Your task to perform on an android device: Open Google Chrome and open the bookmarks view Image 0: 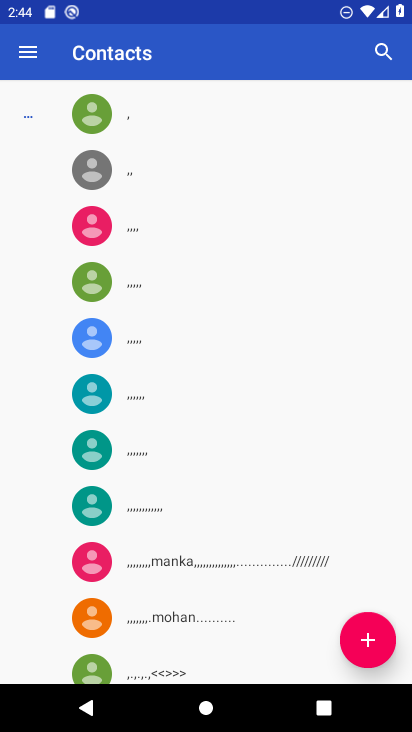
Step 0: press home button
Your task to perform on an android device: Open Google Chrome and open the bookmarks view Image 1: 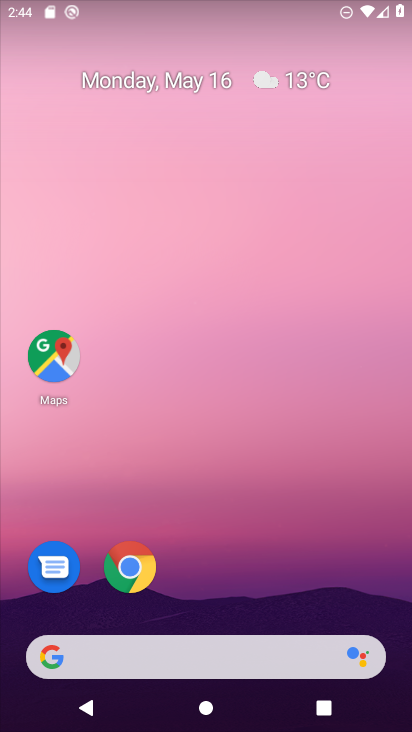
Step 1: click (135, 558)
Your task to perform on an android device: Open Google Chrome and open the bookmarks view Image 2: 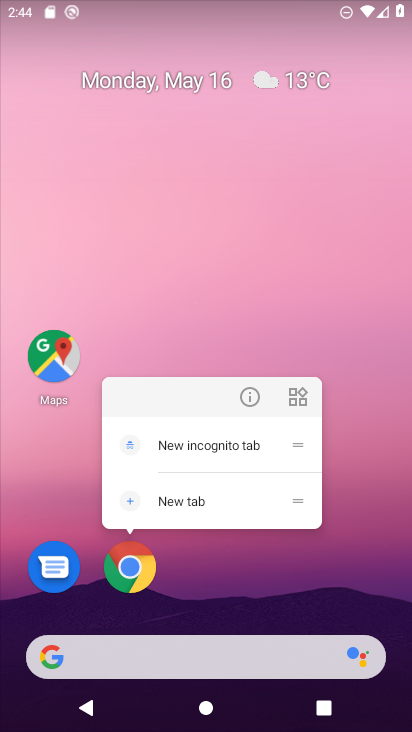
Step 2: click (137, 562)
Your task to perform on an android device: Open Google Chrome and open the bookmarks view Image 3: 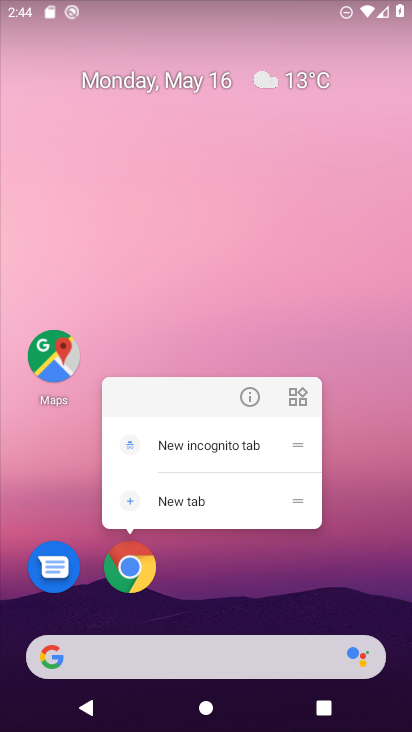
Step 3: click (130, 577)
Your task to perform on an android device: Open Google Chrome and open the bookmarks view Image 4: 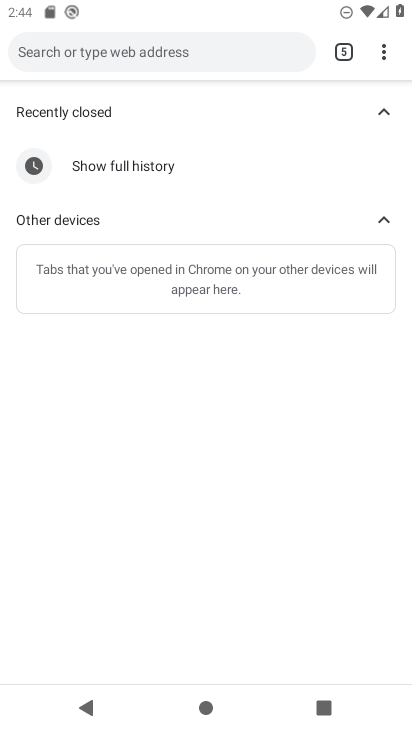
Step 4: click (380, 58)
Your task to perform on an android device: Open Google Chrome and open the bookmarks view Image 5: 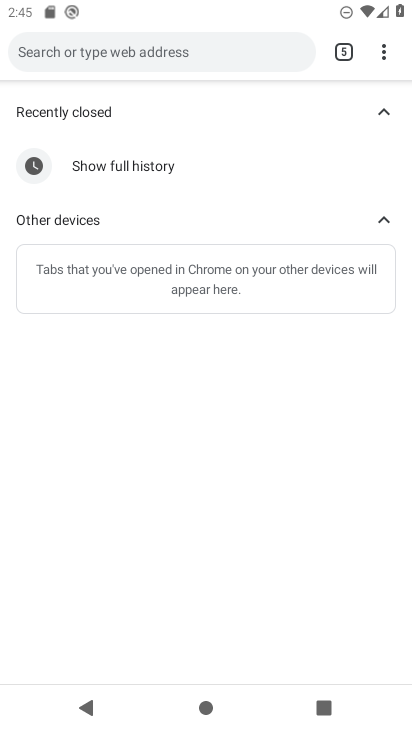
Step 5: click (376, 55)
Your task to perform on an android device: Open Google Chrome and open the bookmarks view Image 6: 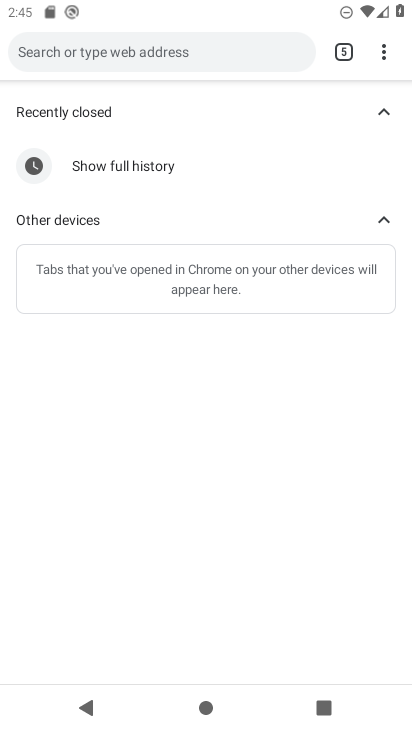
Step 6: click (386, 58)
Your task to perform on an android device: Open Google Chrome and open the bookmarks view Image 7: 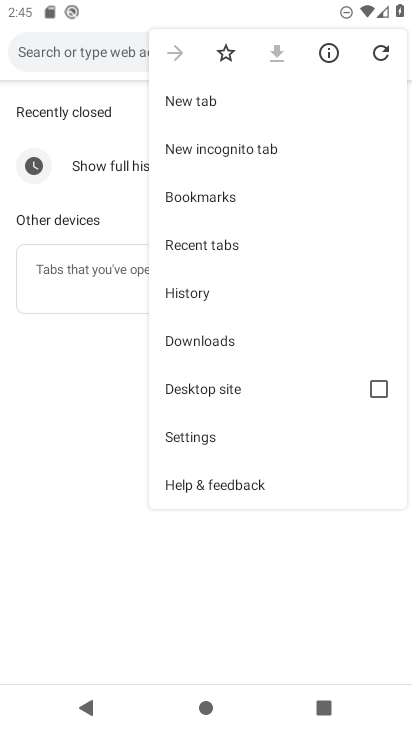
Step 7: click (216, 199)
Your task to perform on an android device: Open Google Chrome and open the bookmarks view Image 8: 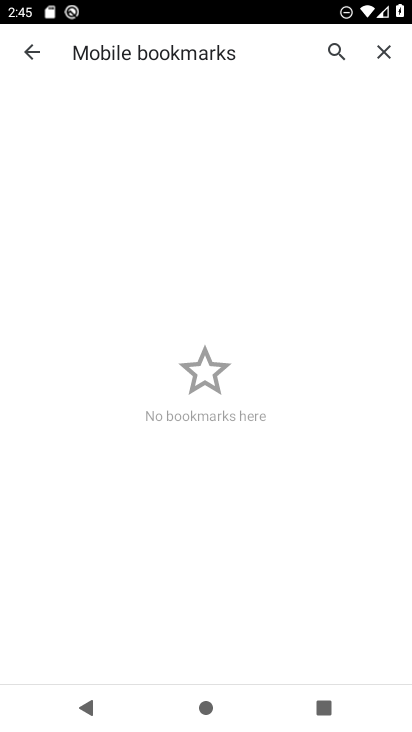
Step 8: task complete